Your task to perform on an android device: Open my contact list Image 0: 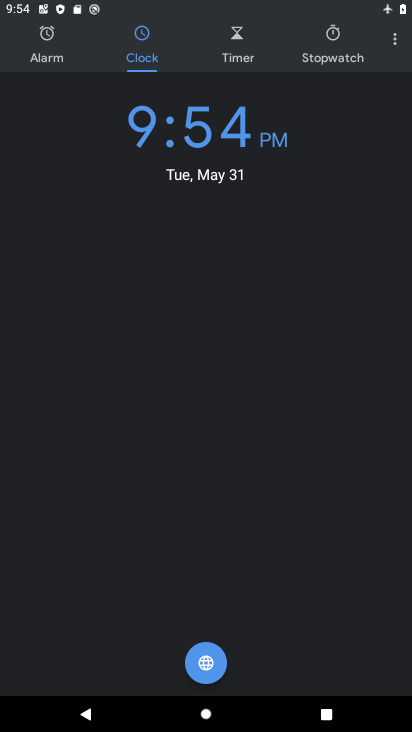
Step 0: press home button
Your task to perform on an android device: Open my contact list Image 1: 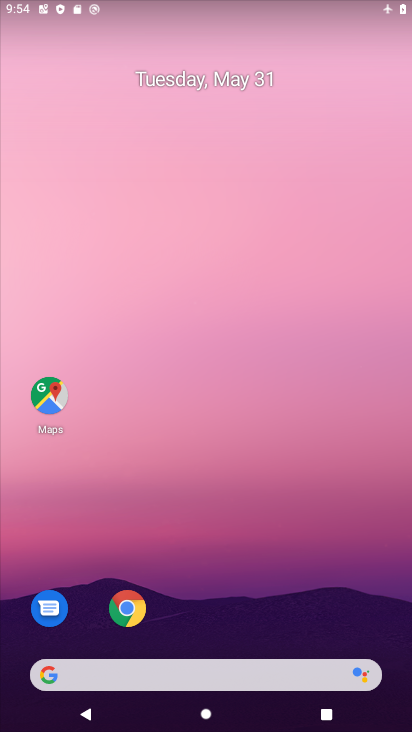
Step 1: drag from (192, 629) to (163, 26)
Your task to perform on an android device: Open my contact list Image 2: 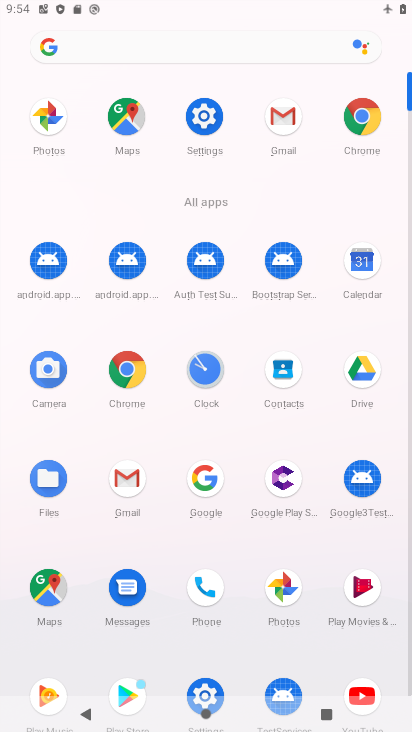
Step 2: click (198, 589)
Your task to perform on an android device: Open my contact list Image 3: 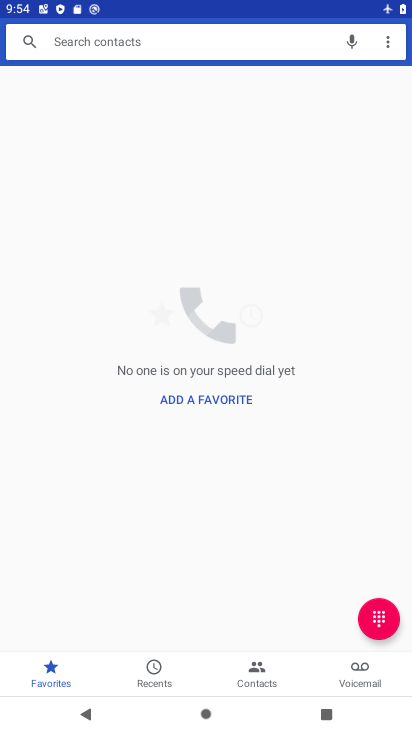
Step 3: click (249, 675)
Your task to perform on an android device: Open my contact list Image 4: 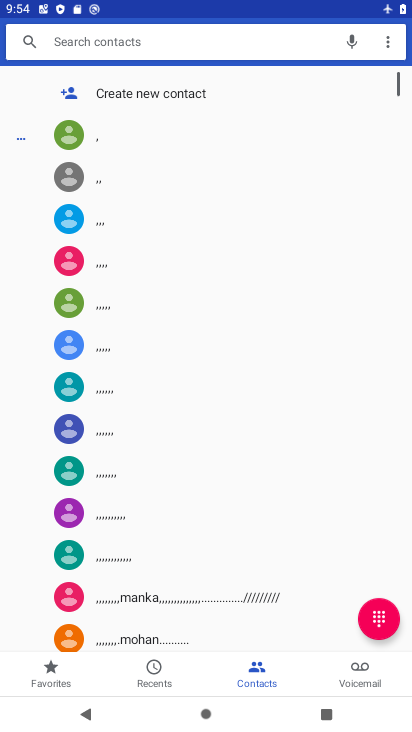
Step 4: task complete